Your task to perform on an android device: Open CNN.com Image 0: 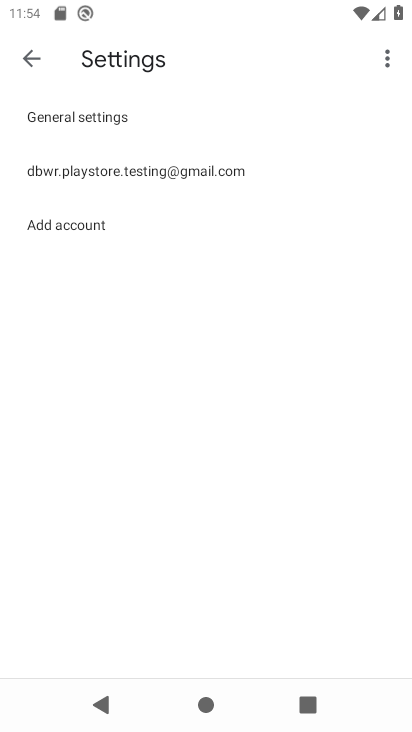
Step 0: press home button
Your task to perform on an android device: Open CNN.com Image 1: 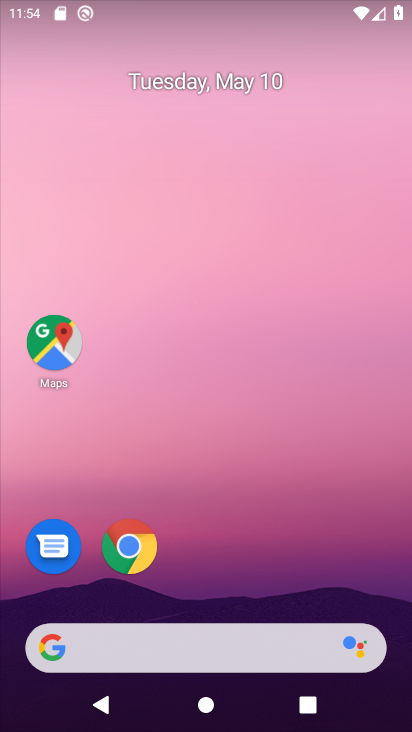
Step 1: drag from (244, 522) to (247, 212)
Your task to perform on an android device: Open CNN.com Image 2: 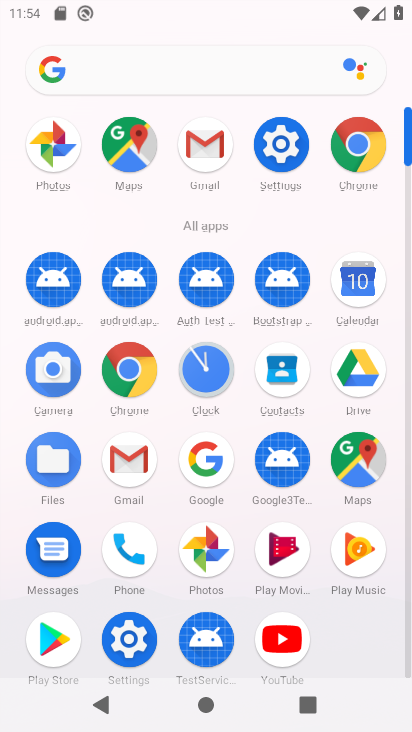
Step 2: click (116, 366)
Your task to perform on an android device: Open CNN.com Image 3: 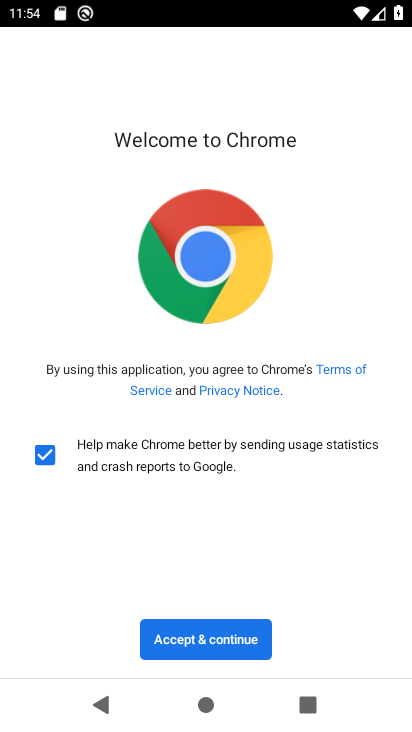
Step 3: click (218, 632)
Your task to perform on an android device: Open CNN.com Image 4: 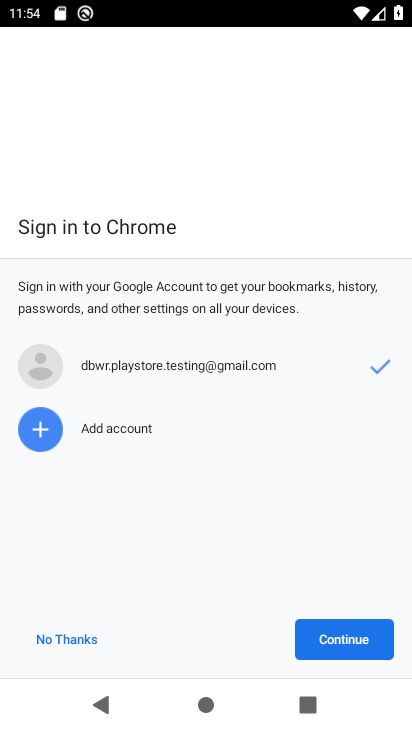
Step 4: click (338, 647)
Your task to perform on an android device: Open CNN.com Image 5: 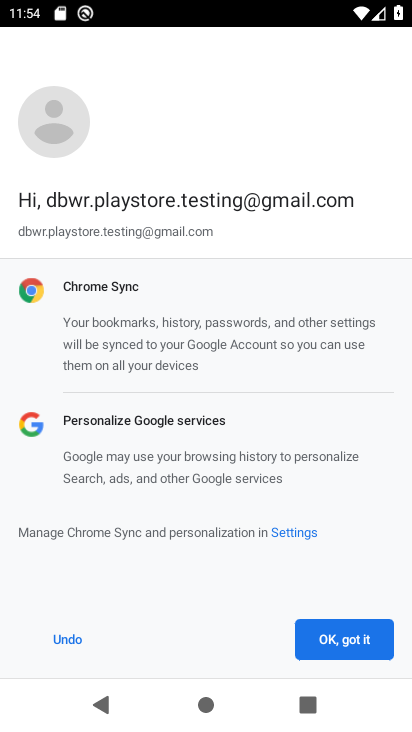
Step 5: click (338, 647)
Your task to perform on an android device: Open CNN.com Image 6: 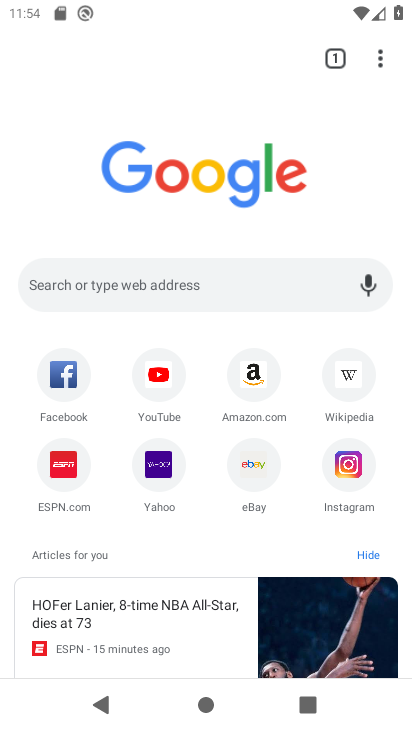
Step 6: click (231, 277)
Your task to perform on an android device: Open CNN.com Image 7: 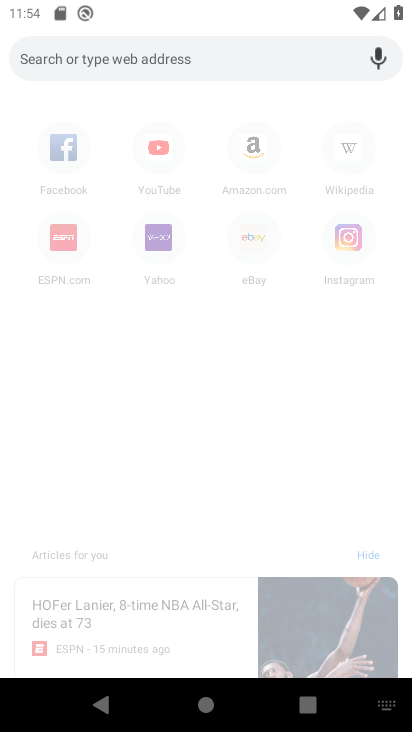
Step 7: type "CNN.com"
Your task to perform on an android device: Open CNN.com Image 8: 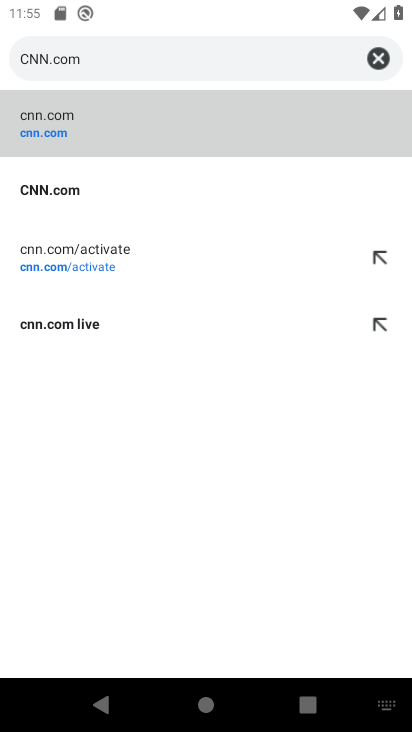
Step 8: click (33, 181)
Your task to perform on an android device: Open CNN.com Image 9: 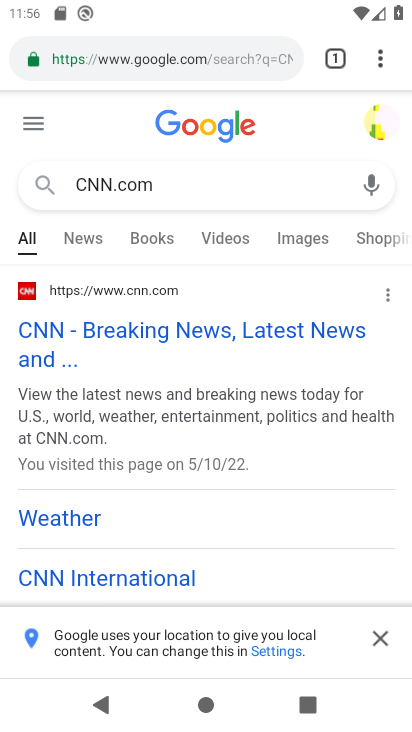
Step 9: task complete